Your task to perform on an android device: delete a single message in the gmail app Image 0: 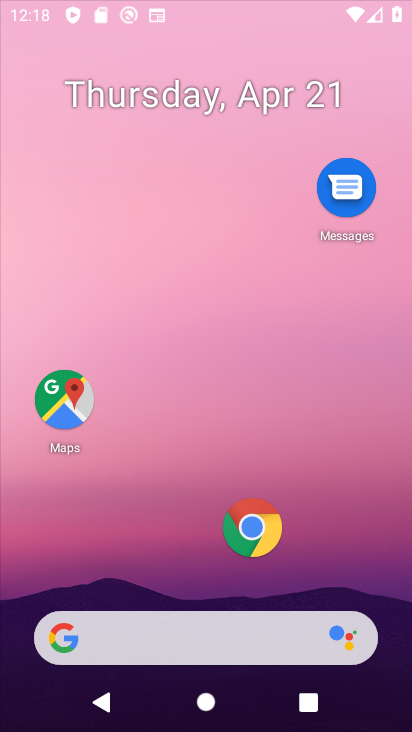
Step 0: drag from (167, 577) to (241, 112)
Your task to perform on an android device: delete a single message in the gmail app Image 1: 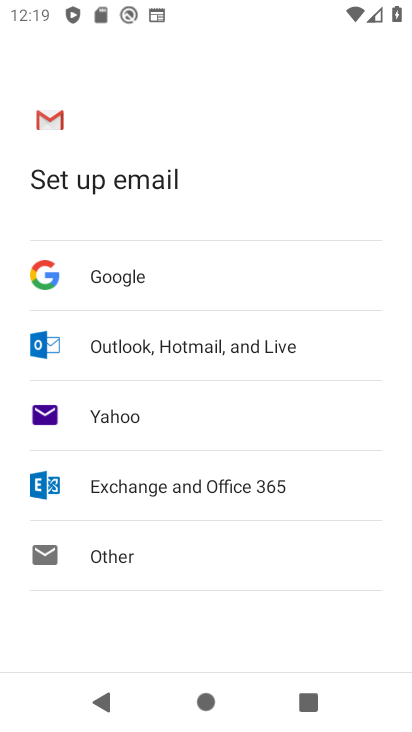
Step 1: press home button
Your task to perform on an android device: delete a single message in the gmail app Image 2: 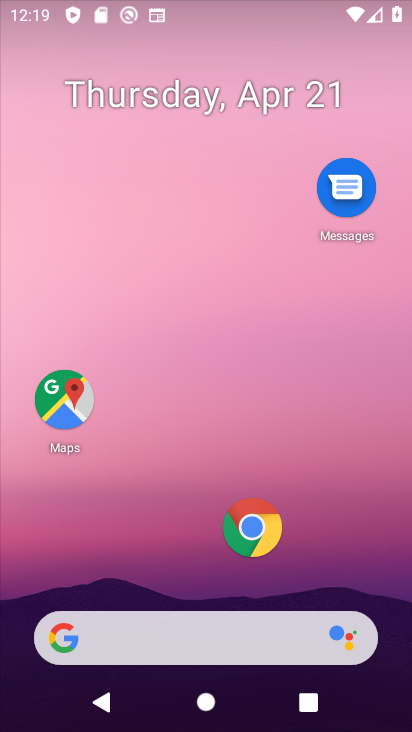
Step 2: drag from (140, 589) to (304, 116)
Your task to perform on an android device: delete a single message in the gmail app Image 3: 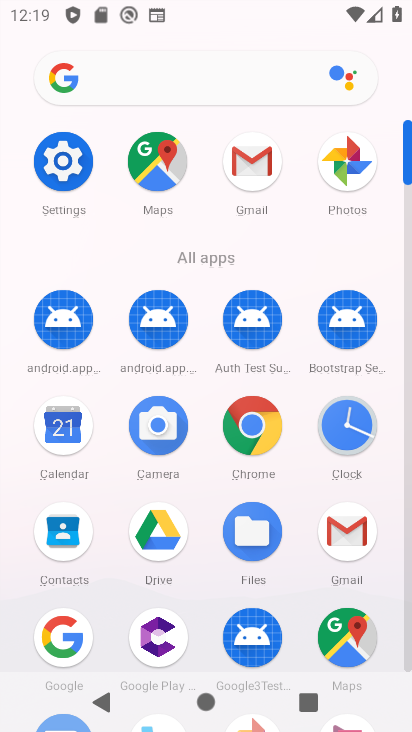
Step 3: click (250, 157)
Your task to perform on an android device: delete a single message in the gmail app Image 4: 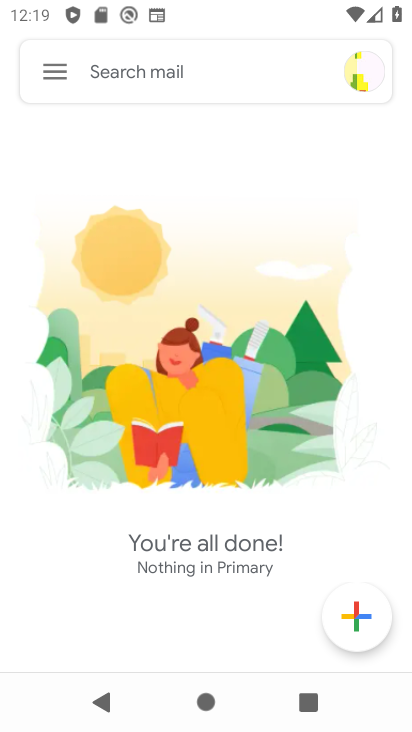
Step 4: click (52, 79)
Your task to perform on an android device: delete a single message in the gmail app Image 5: 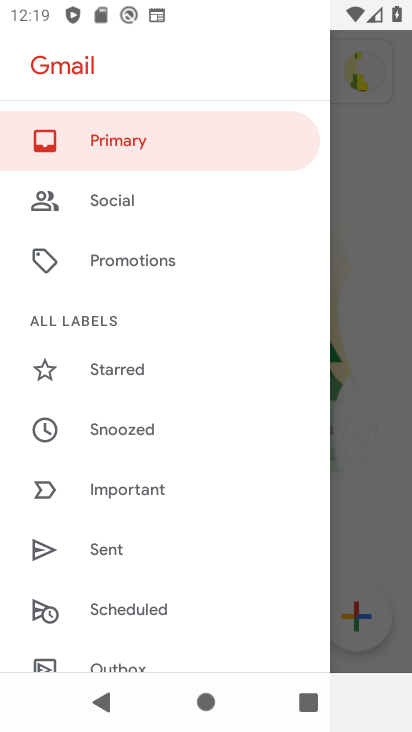
Step 5: drag from (171, 572) to (231, 370)
Your task to perform on an android device: delete a single message in the gmail app Image 6: 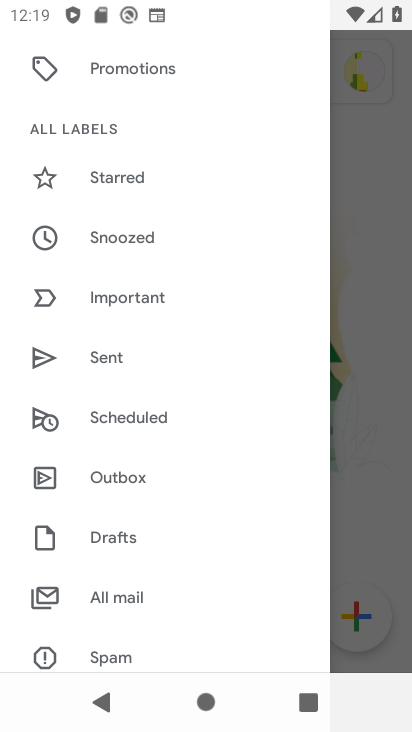
Step 6: click (109, 588)
Your task to perform on an android device: delete a single message in the gmail app Image 7: 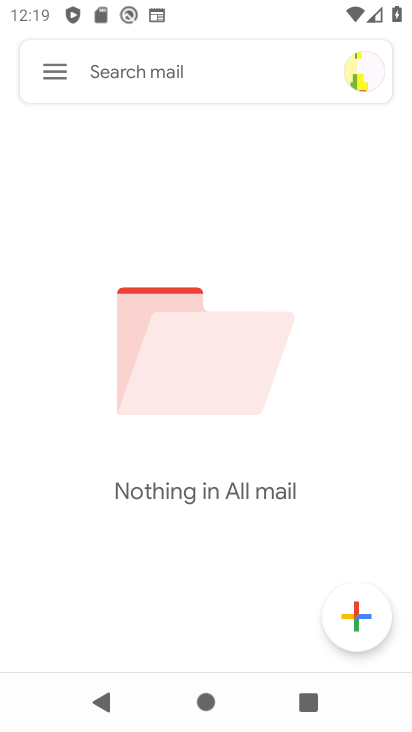
Step 7: task complete